Your task to perform on an android device: Go to Maps Image 0: 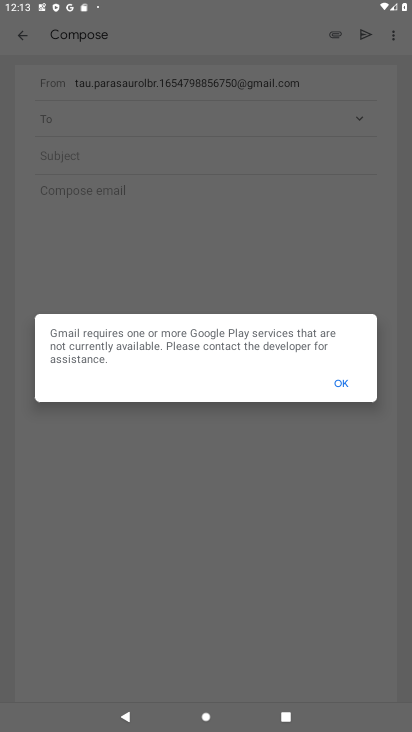
Step 0: press home button
Your task to perform on an android device: Go to Maps Image 1: 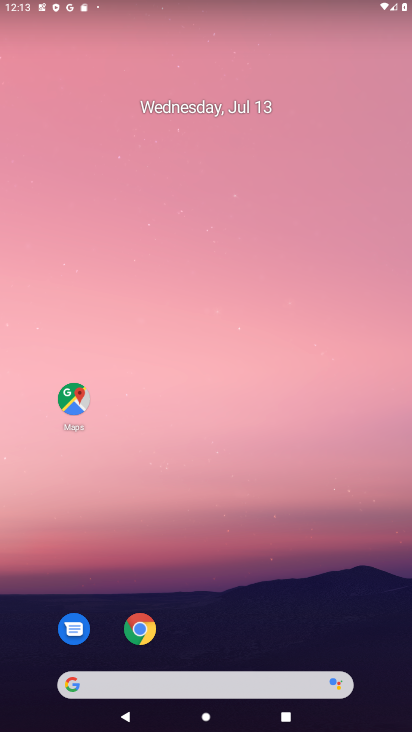
Step 1: click (75, 398)
Your task to perform on an android device: Go to Maps Image 2: 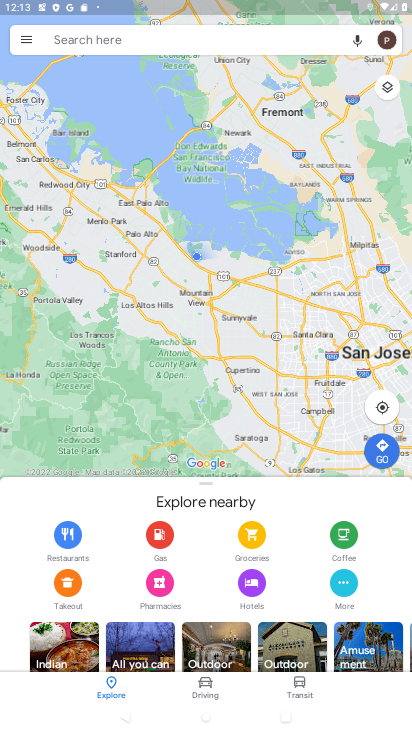
Step 2: task complete